Your task to perform on an android device: turn off location history Image 0: 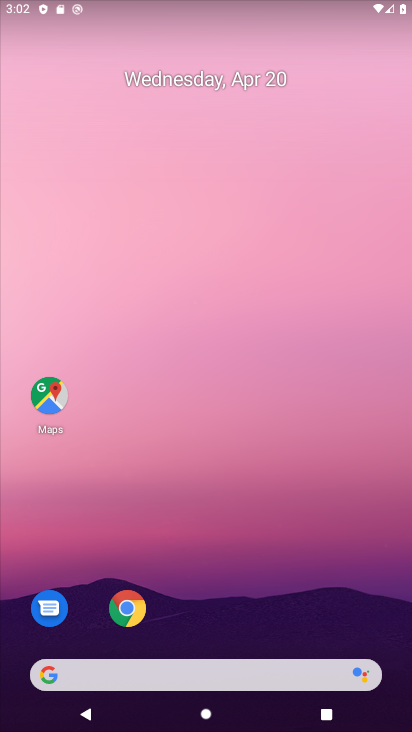
Step 0: drag from (236, 564) to (157, 26)
Your task to perform on an android device: turn off location history Image 1: 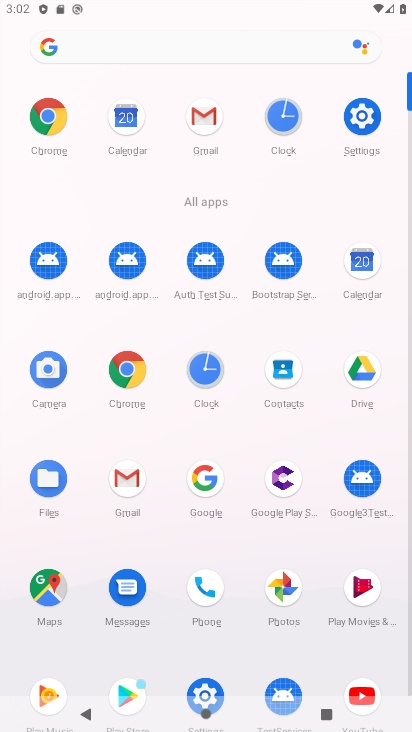
Step 1: click (362, 110)
Your task to perform on an android device: turn off location history Image 2: 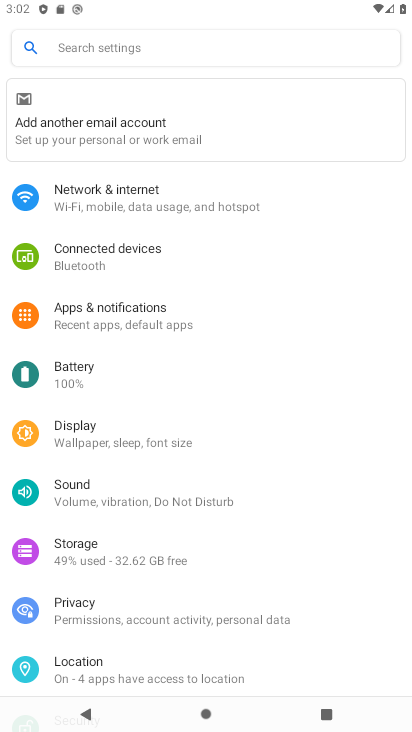
Step 2: click (84, 659)
Your task to perform on an android device: turn off location history Image 3: 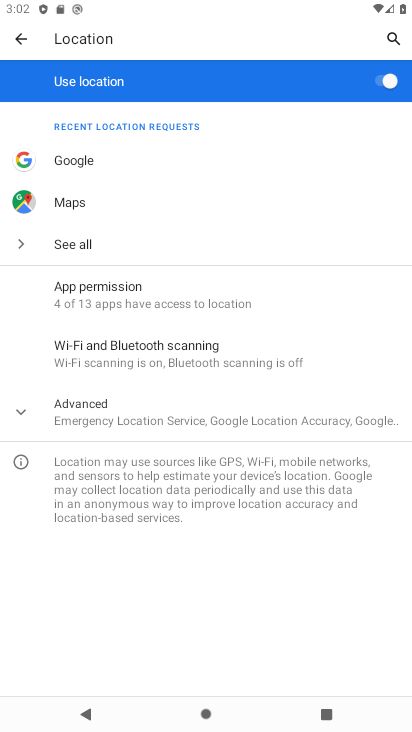
Step 3: click (147, 411)
Your task to perform on an android device: turn off location history Image 4: 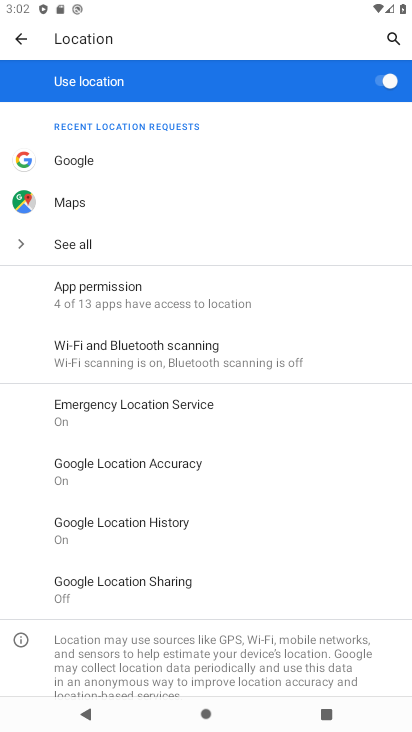
Step 4: click (141, 520)
Your task to perform on an android device: turn off location history Image 5: 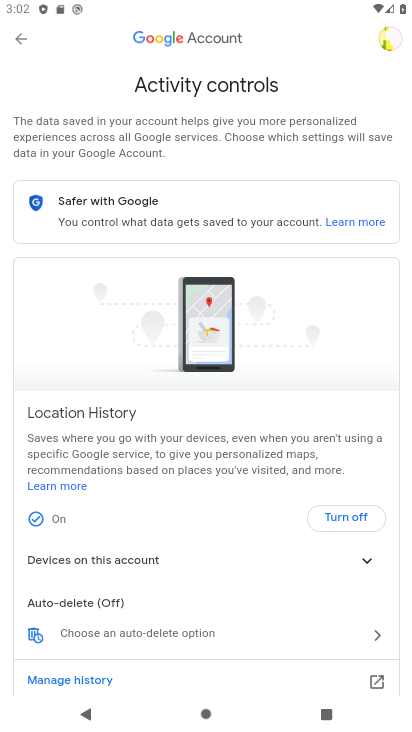
Step 5: click (366, 509)
Your task to perform on an android device: turn off location history Image 6: 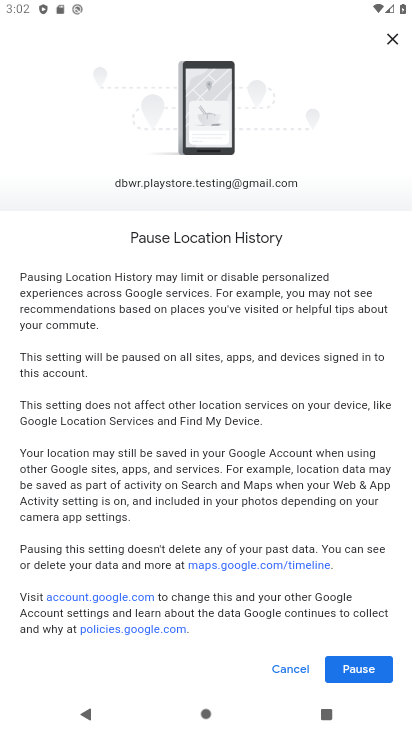
Step 6: click (358, 666)
Your task to perform on an android device: turn off location history Image 7: 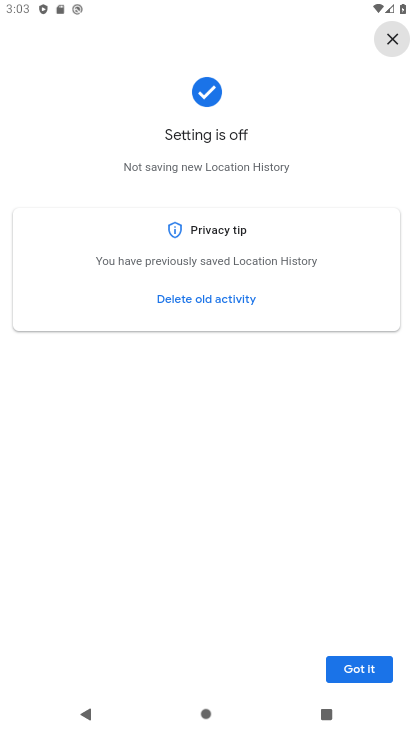
Step 7: task complete